Your task to perform on an android device: Do I have any events today? Image 0: 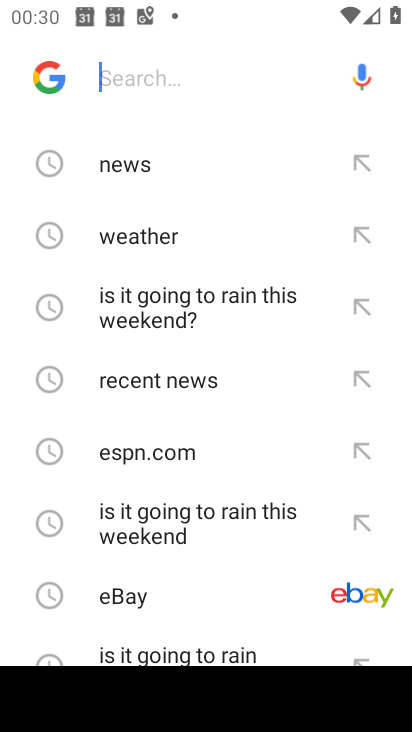
Step 0: press home button
Your task to perform on an android device: Do I have any events today? Image 1: 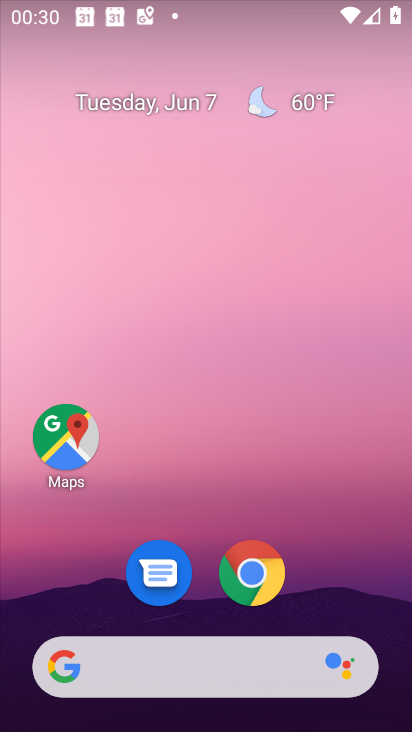
Step 1: drag from (370, 567) to (231, 78)
Your task to perform on an android device: Do I have any events today? Image 2: 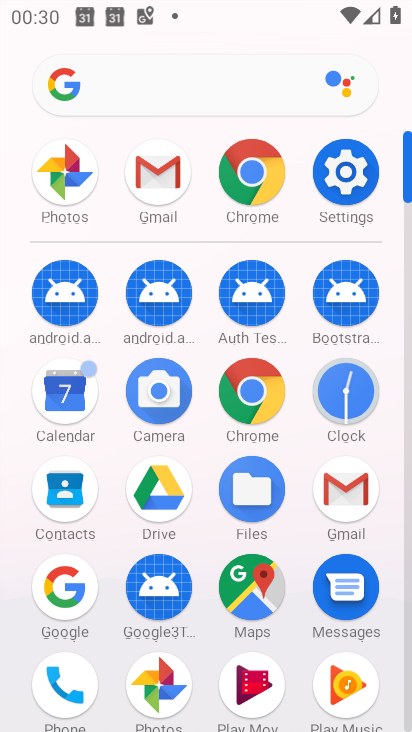
Step 2: click (75, 370)
Your task to perform on an android device: Do I have any events today? Image 3: 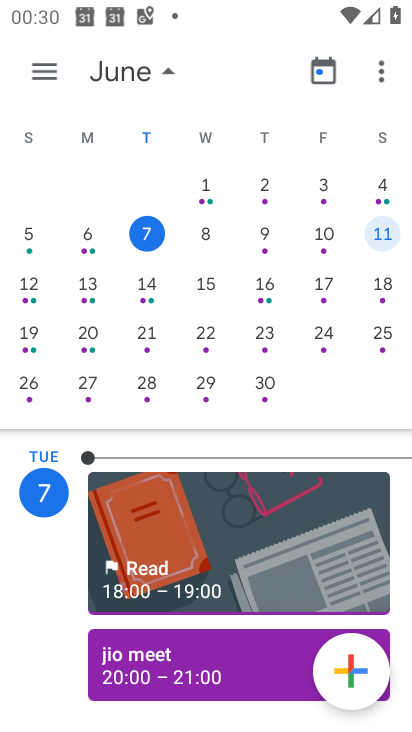
Step 3: click (171, 72)
Your task to perform on an android device: Do I have any events today? Image 4: 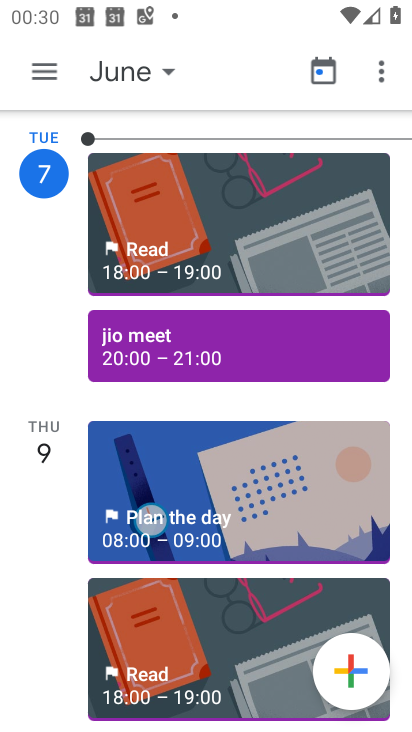
Step 4: click (173, 67)
Your task to perform on an android device: Do I have any events today? Image 5: 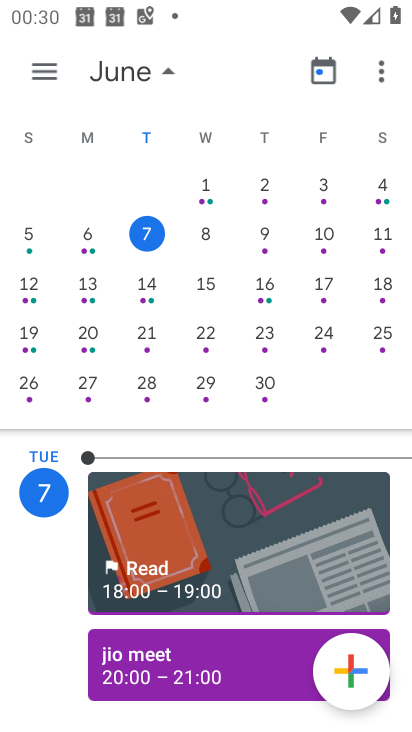
Step 5: click (157, 224)
Your task to perform on an android device: Do I have any events today? Image 6: 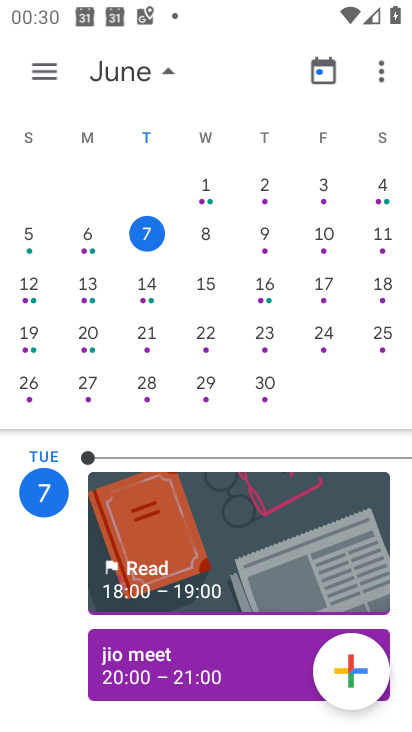
Step 6: click (182, 85)
Your task to perform on an android device: Do I have any events today? Image 7: 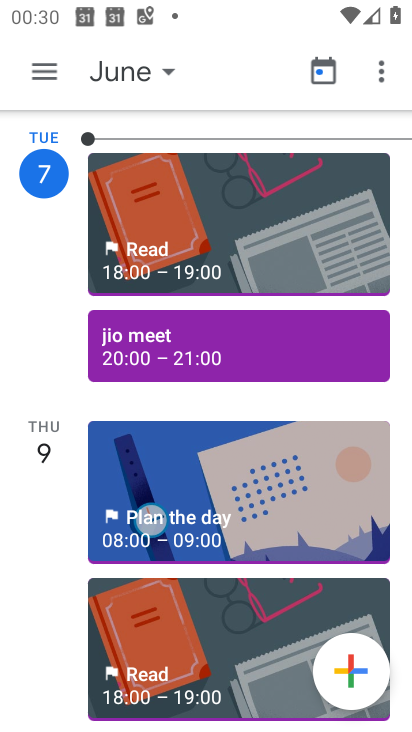
Step 7: task complete